Your task to perform on an android device: set default search engine in the chrome app Image 0: 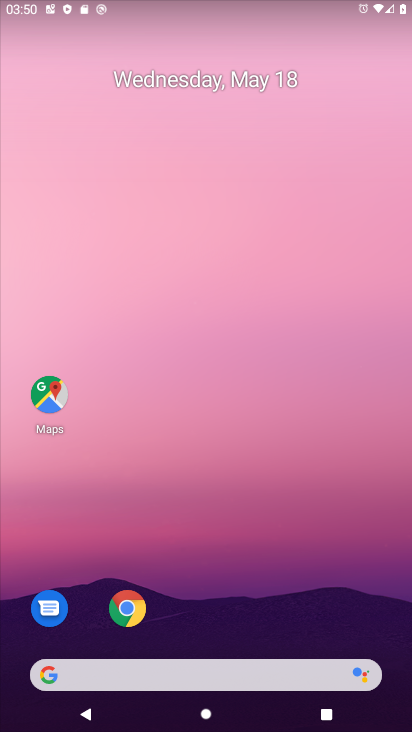
Step 0: click (132, 612)
Your task to perform on an android device: set default search engine in the chrome app Image 1: 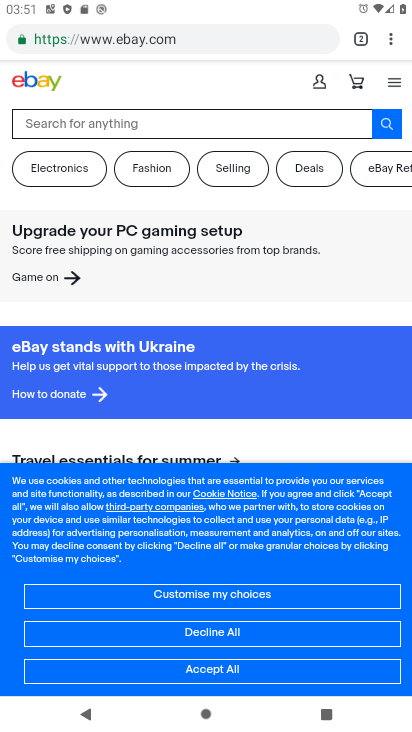
Step 1: click (394, 42)
Your task to perform on an android device: set default search engine in the chrome app Image 2: 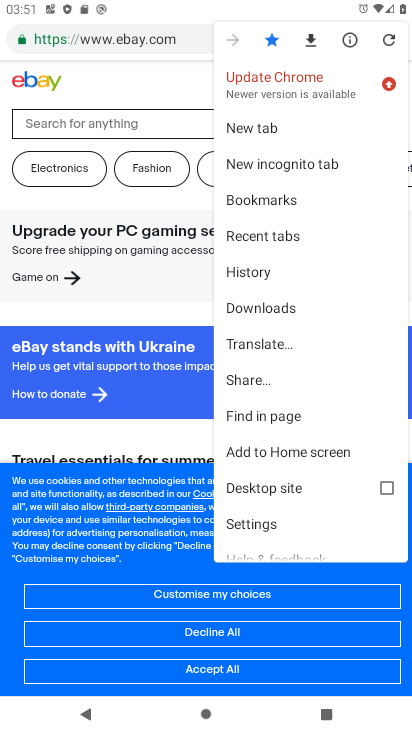
Step 2: click (273, 512)
Your task to perform on an android device: set default search engine in the chrome app Image 3: 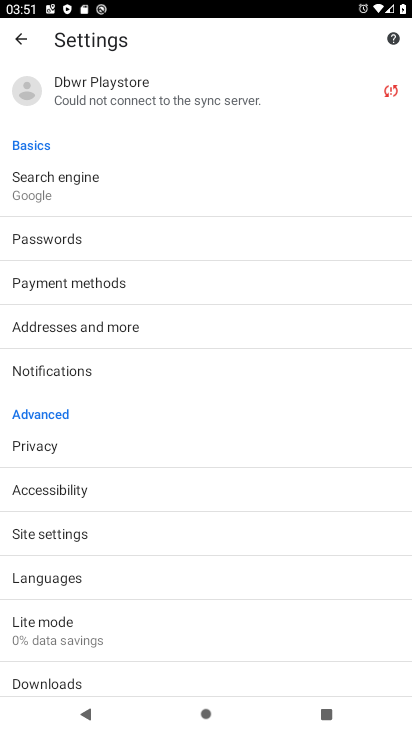
Step 3: click (51, 199)
Your task to perform on an android device: set default search engine in the chrome app Image 4: 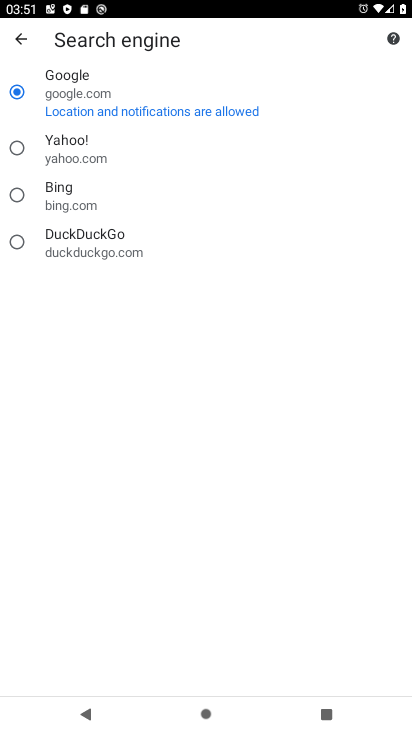
Step 4: click (85, 199)
Your task to perform on an android device: set default search engine in the chrome app Image 5: 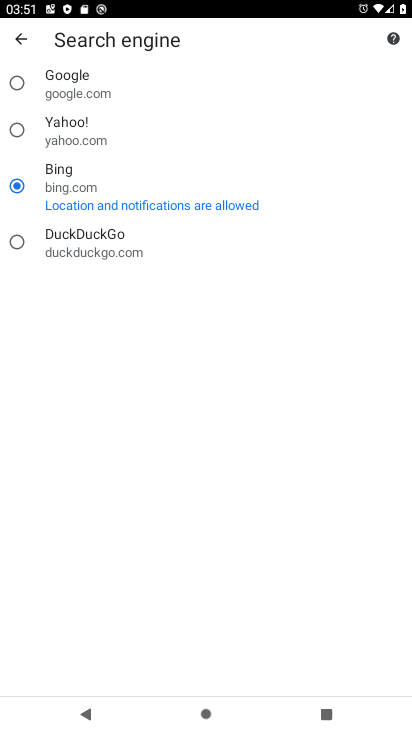
Step 5: task complete